Your task to perform on an android device: Go to notification settings Image 0: 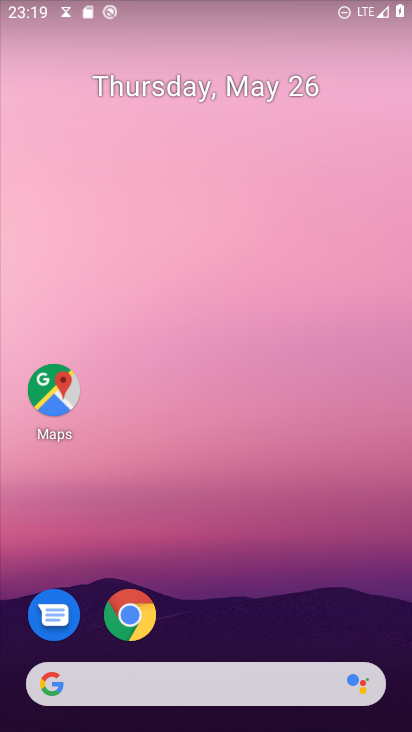
Step 0: drag from (218, 356) to (209, 178)
Your task to perform on an android device: Go to notification settings Image 1: 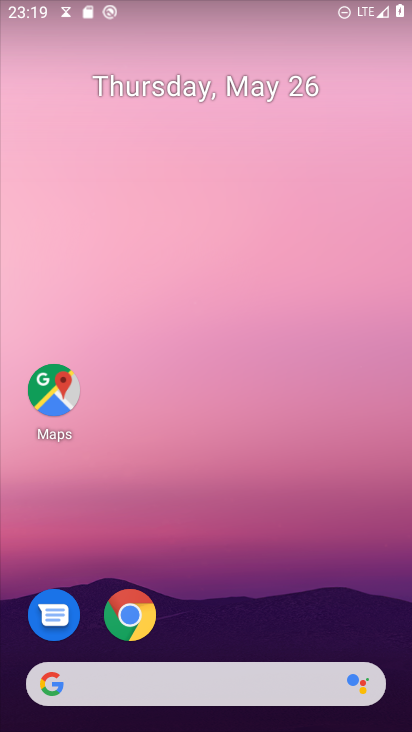
Step 1: drag from (203, 560) to (239, 185)
Your task to perform on an android device: Go to notification settings Image 2: 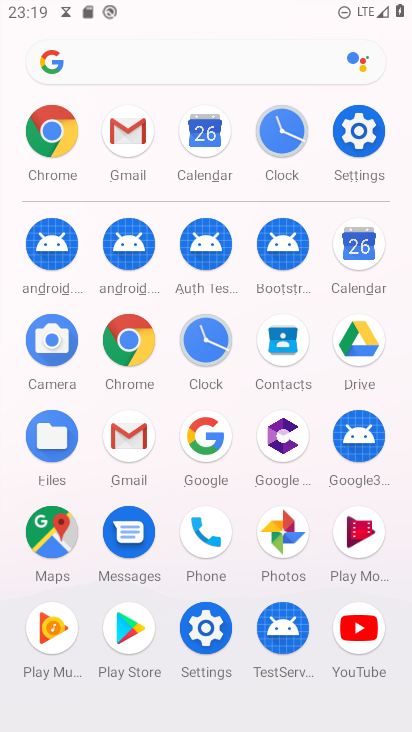
Step 2: click (356, 112)
Your task to perform on an android device: Go to notification settings Image 3: 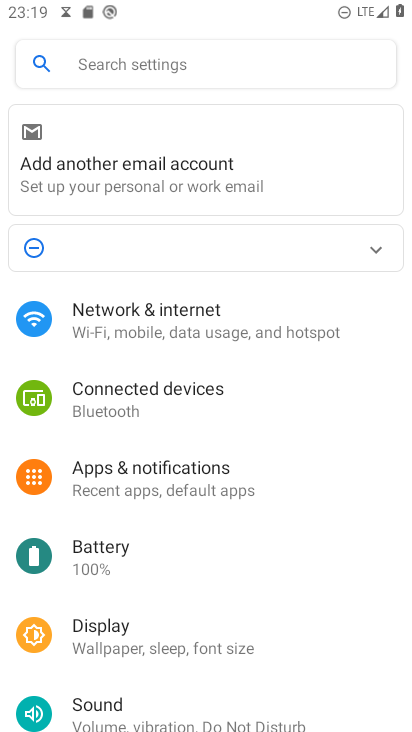
Step 3: click (201, 464)
Your task to perform on an android device: Go to notification settings Image 4: 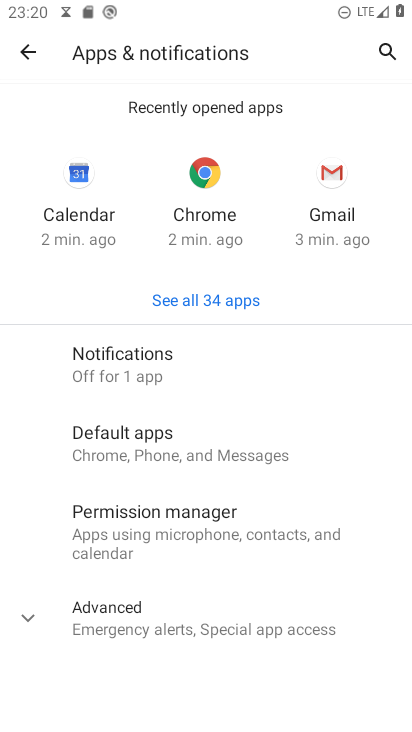
Step 4: click (146, 369)
Your task to perform on an android device: Go to notification settings Image 5: 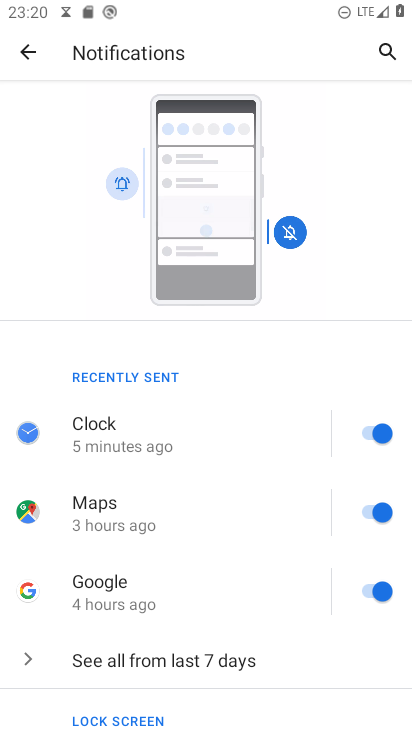
Step 5: task complete